Your task to perform on an android device: change keyboard looks Image 0: 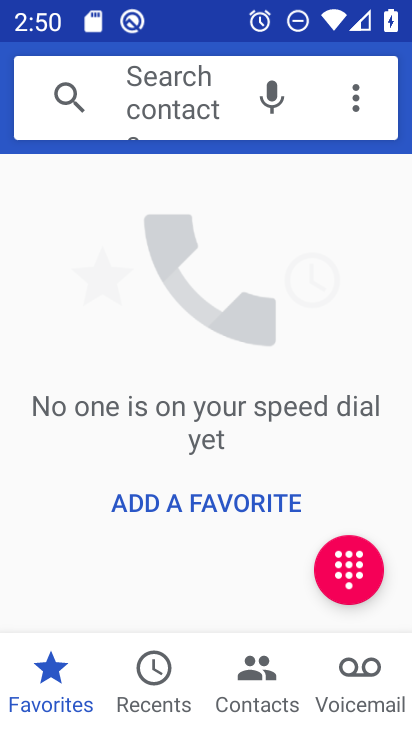
Step 0: press home button
Your task to perform on an android device: change keyboard looks Image 1: 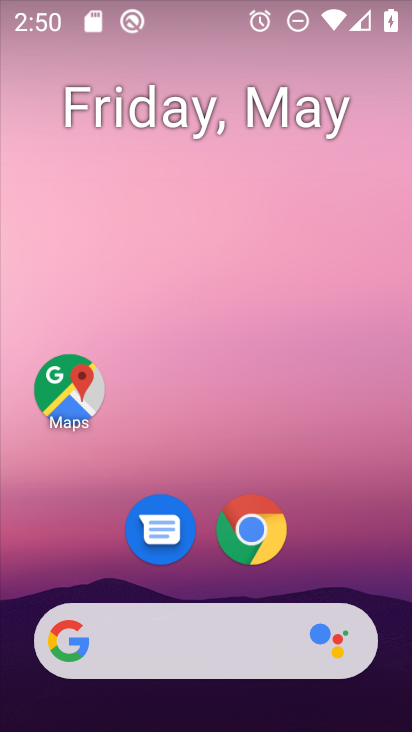
Step 1: drag from (402, 708) to (375, 161)
Your task to perform on an android device: change keyboard looks Image 2: 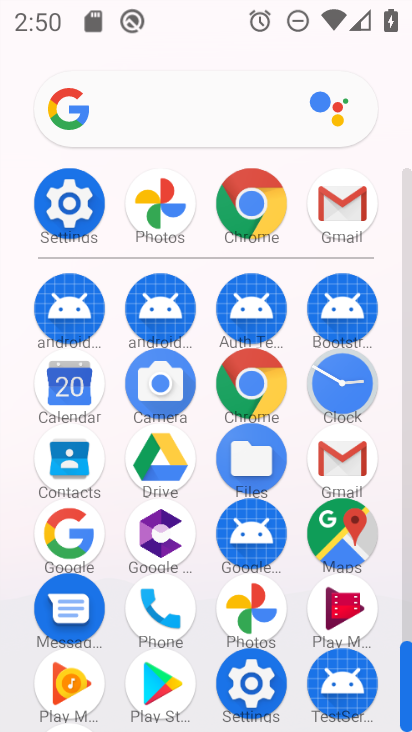
Step 2: click (71, 208)
Your task to perform on an android device: change keyboard looks Image 3: 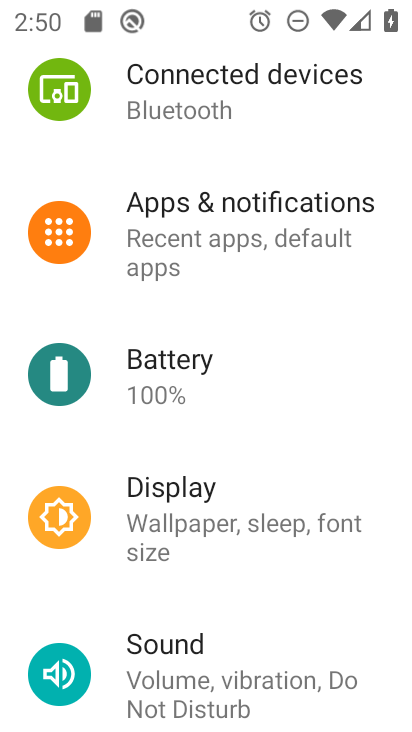
Step 3: drag from (369, 705) to (341, 216)
Your task to perform on an android device: change keyboard looks Image 4: 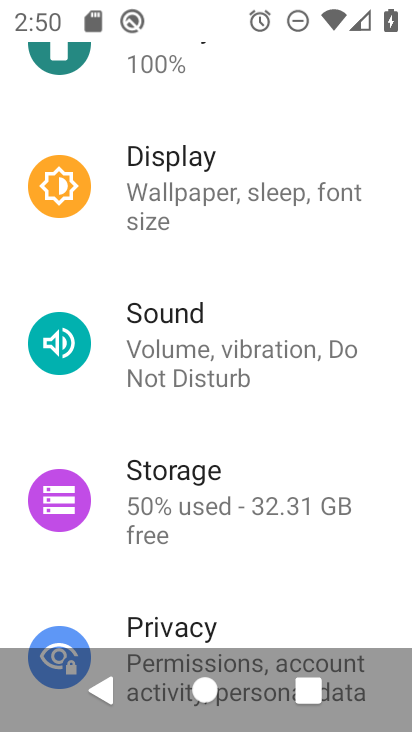
Step 4: drag from (377, 626) to (336, 196)
Your task to perform on an android device: change keyboard looks Image 5: 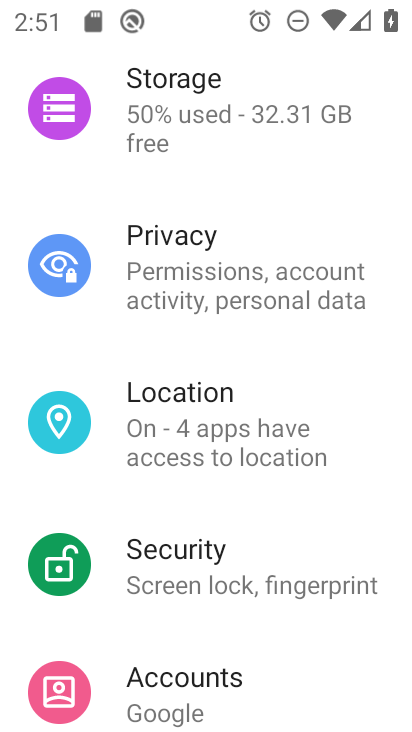
Step 5: drag from (332, 673) to (331, 194)
Your task to perform on an android device: change keyboard looks Image 6: 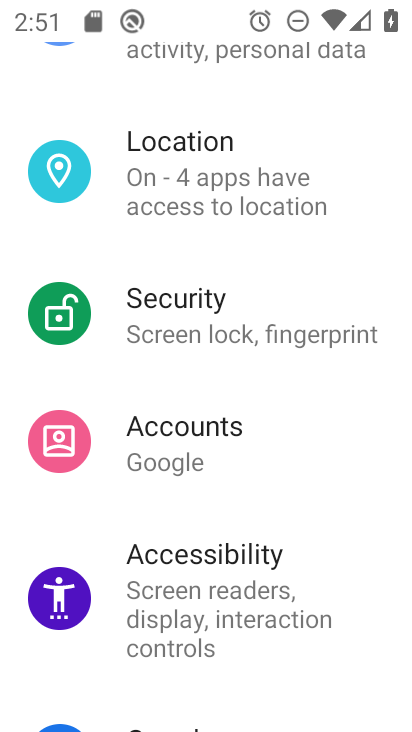
Step 6: drag from (345, 682) to (350, 167)
Your task to perform on an android device: change keyboard looks Image 7: 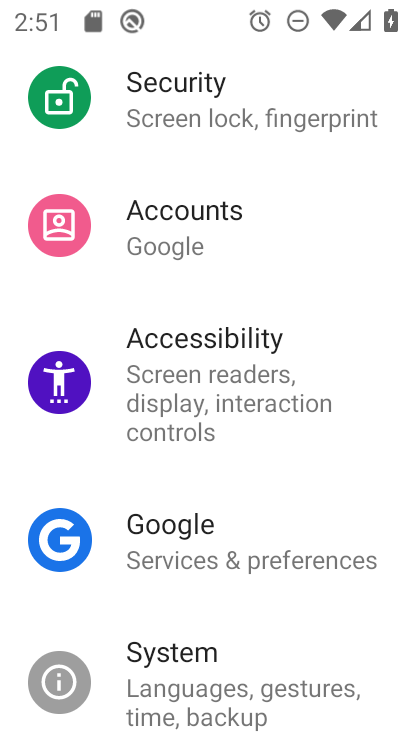
Step 7: click (173, 682)
Your task to perform on an android device: change keyboard looks Image 8: 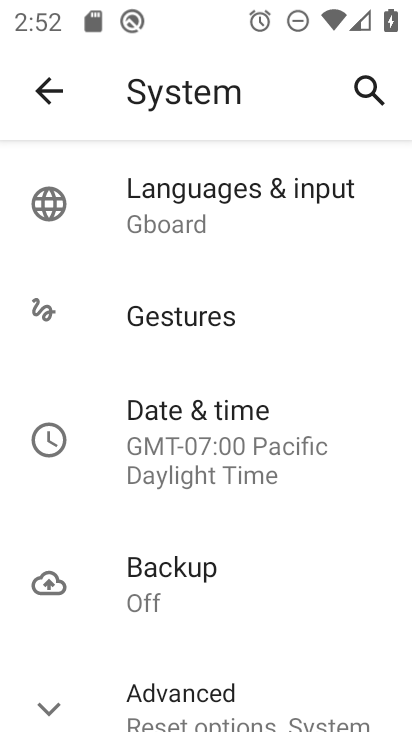
Step 8: drag from (341, 669) to (316, 401)
Your task to perform on an android device: change keyboard looks Image 9: 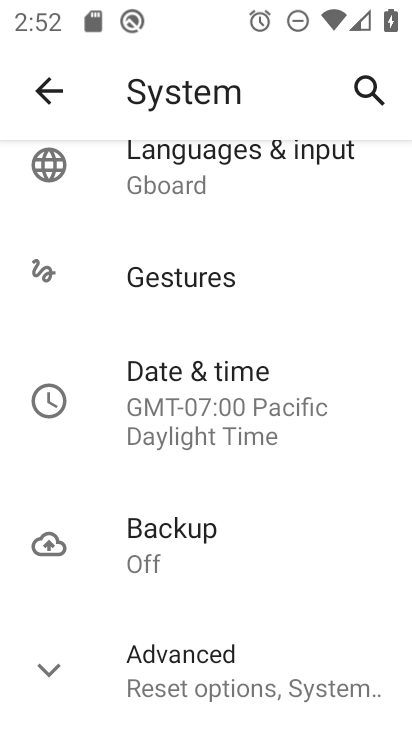
Step 9: drag from (355, 364) to (364, 594)
Your task to perform on an android device: change keyboard looks Image 10: 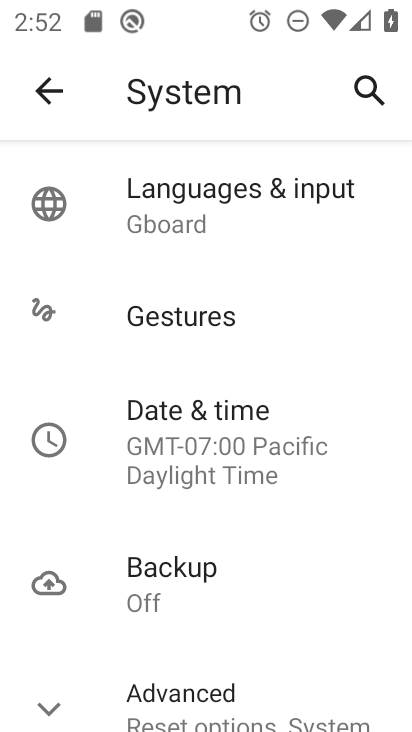
Step 10: click (163, 198)
Your task to perform on an android device: change keyboard looks Image 11: 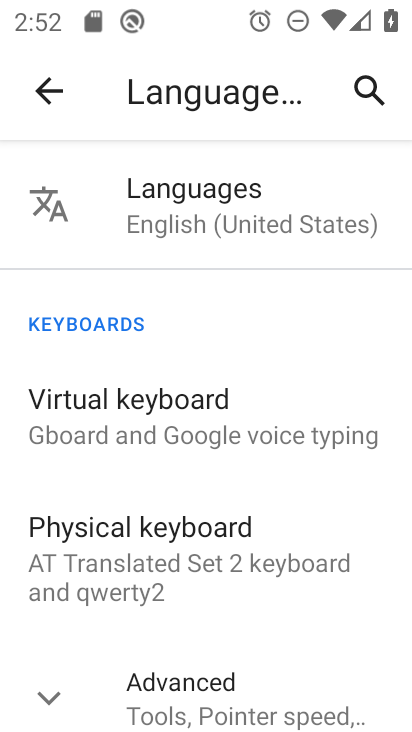
Step 11: click (121, 419)
Your task to perform on an android device: change keyboard looks Image 12: 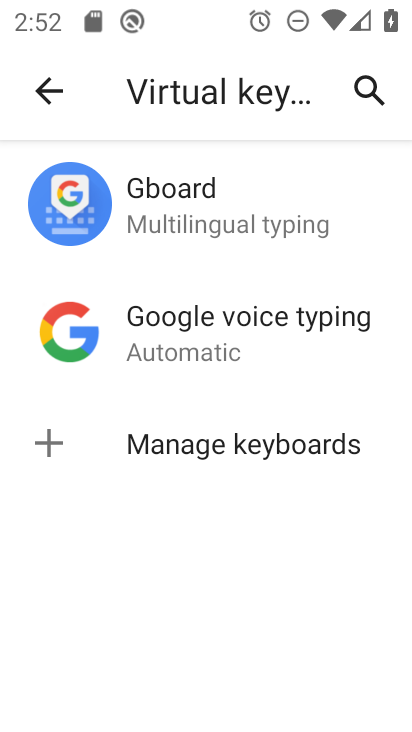
Step 12: click (143, 211)
Your task to perform on an android device: change keyboard looks Image 13: 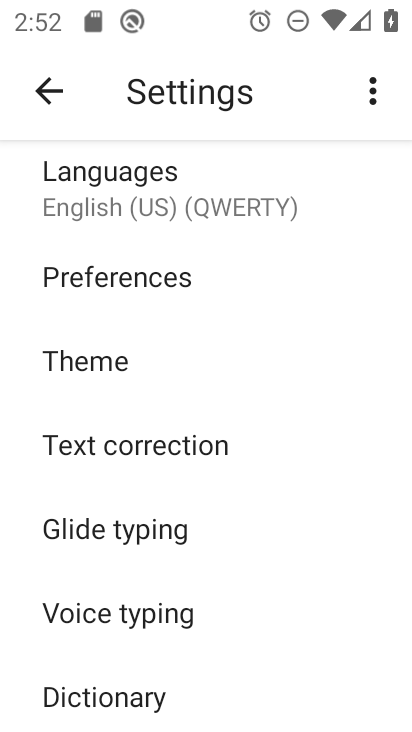
Step 13: click (86, 360)
Your task to perform on an android device: change keyboard looks Image 14: 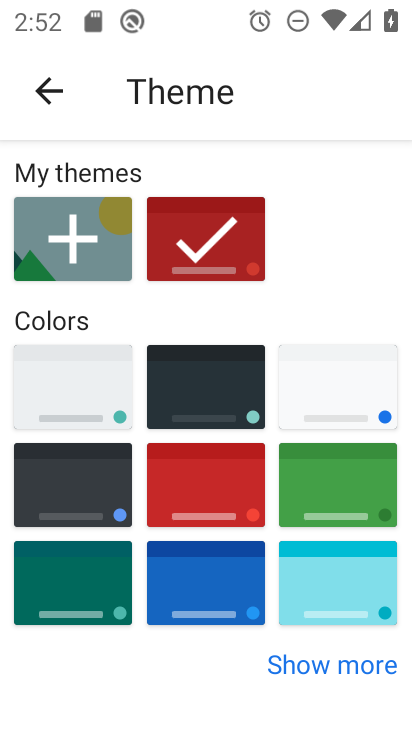
Step 14: click (372, 479)
Your task to perform on an android device: change keyboard looks Image 15: 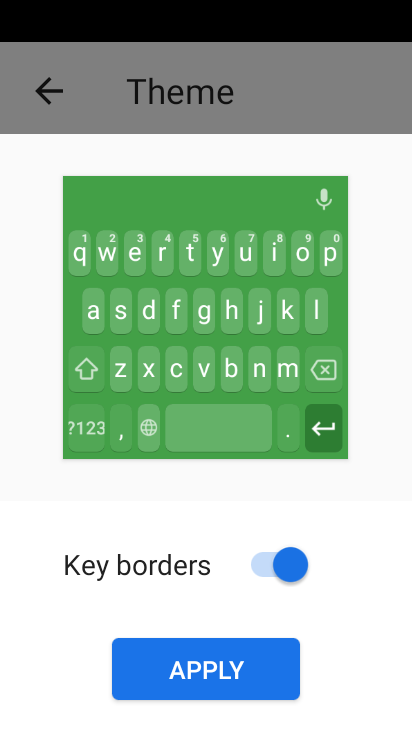
Step 15: task complete